Your task to perform on an android device: turn on location history Image 0: 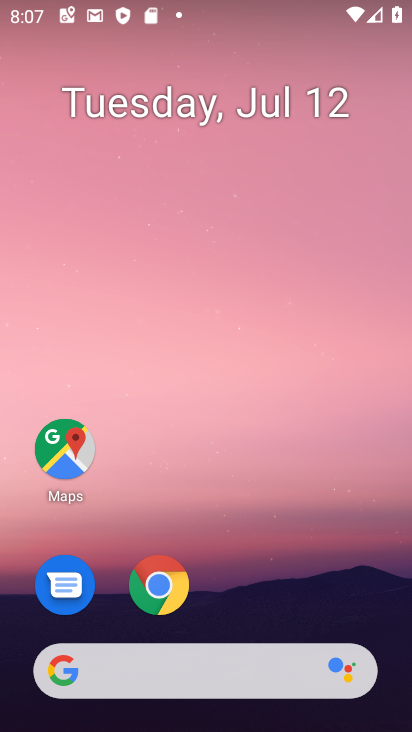
Step 0: drag from (328, 574) to (313, 201)
Your task to perform on an android device: turn on location history Image 1: 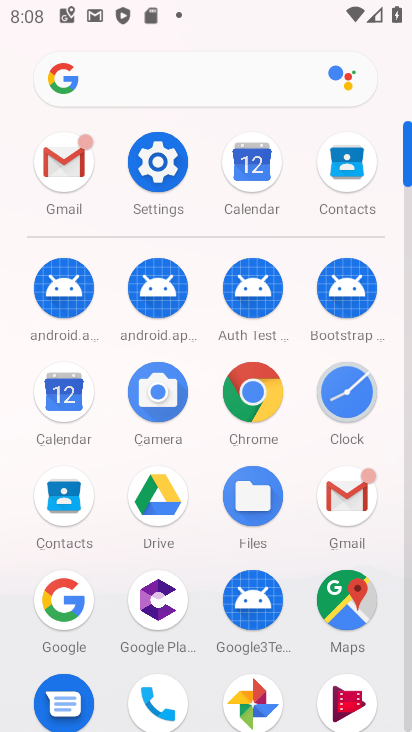
Step 1: click (169, 182)
Your task to perform on an android device: turn on location history Image 2: 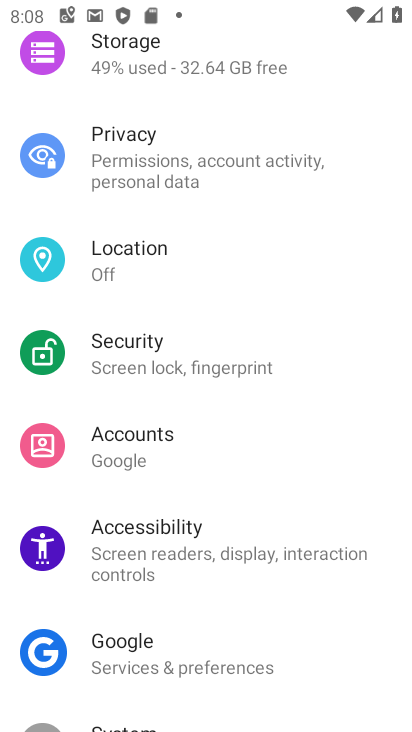
Step 2: click (157, 248)
Your task to perform on an android device: turn on location history Image 3: 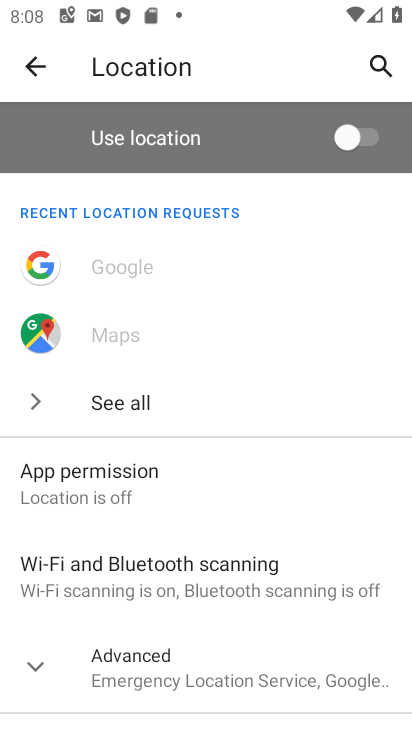
Step 3: click (35, 664)
Your task to perform on an android device: turn on location history Image 4: 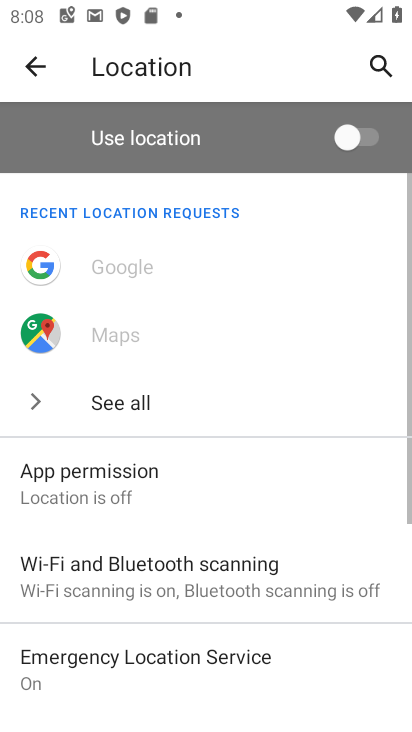
Step 4: task complete